Your task to perform on an android device: Search for macbook pro 15 inch on newegg.com, select the first entry, and add it to the cart. Image 0: 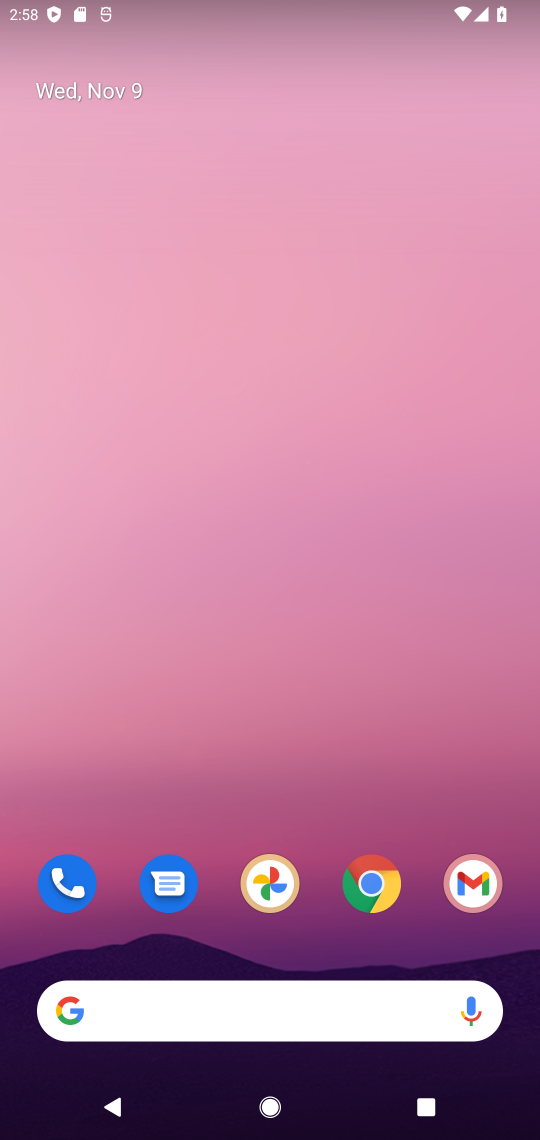
Step 0: task complete